Your task to perform on an android device: allow notifications from all sites in the chrome app Image 0: 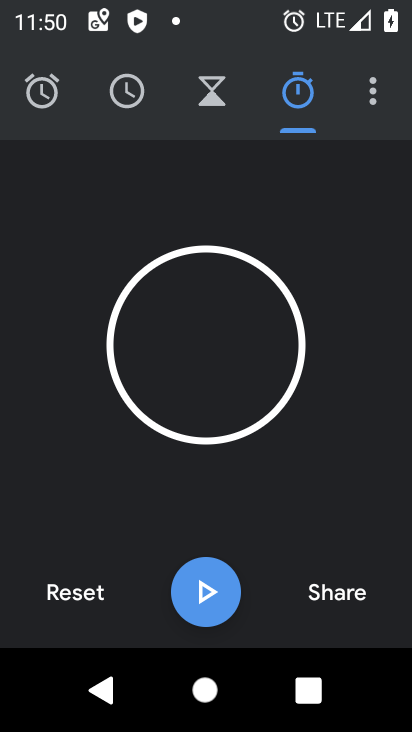
Step 0: press home button
Your task to perform on an android device: allow notifications from all sites in the chrome app Image 1: 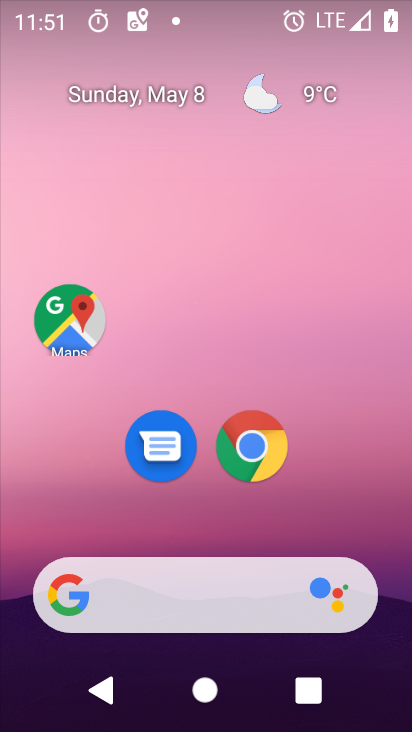
Step 1: click (260, 467)
Your task to perform on an android device: allow notifications from all sites in the chrome app Image 2: 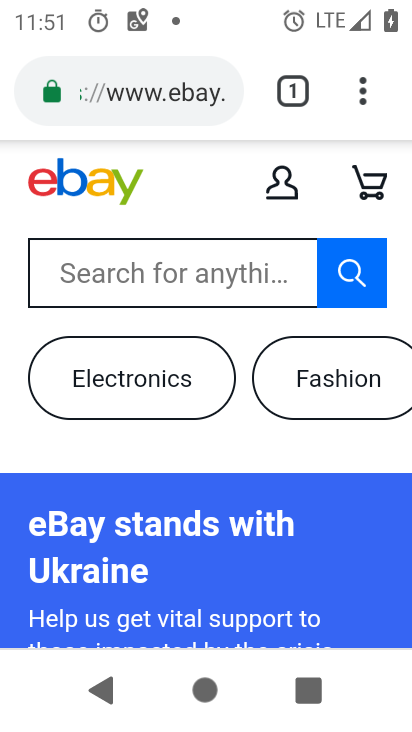
Step 2: drag from (367, 87) to (103, 482)
Your task to perform on an android device: allow notifications from all sites in the chrome app Image 3: 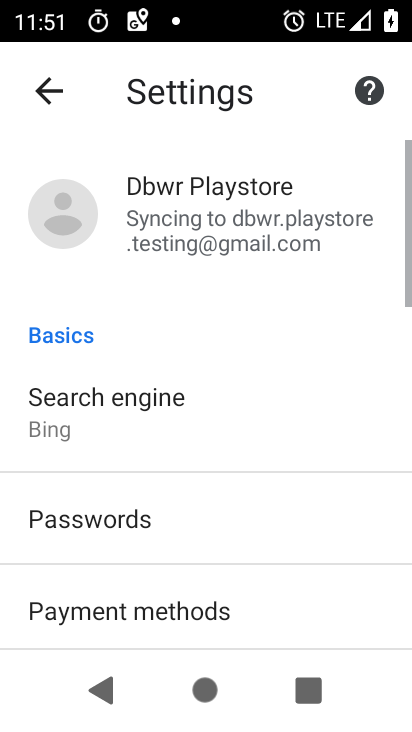
Step 3: drag from (103, 482) to (162, 111)
Your task to perform on an android device: allow notifications from all sites in the chrome app Image 4: 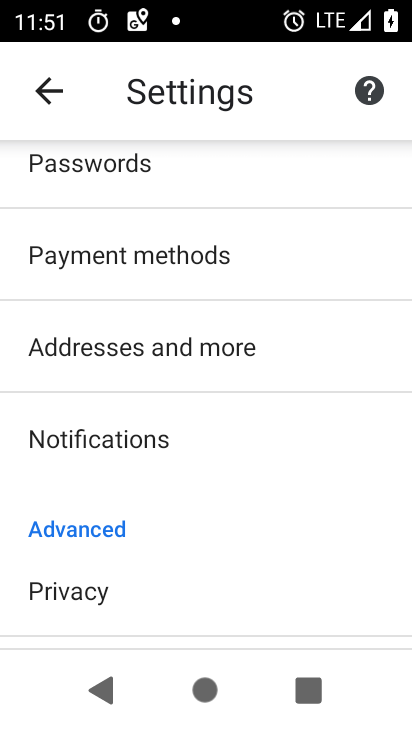
Step 4: drag from (145, 583) to (197, 202)
Your task to perform on an android device: allow notifications from all sites in the chrome app Image 5: 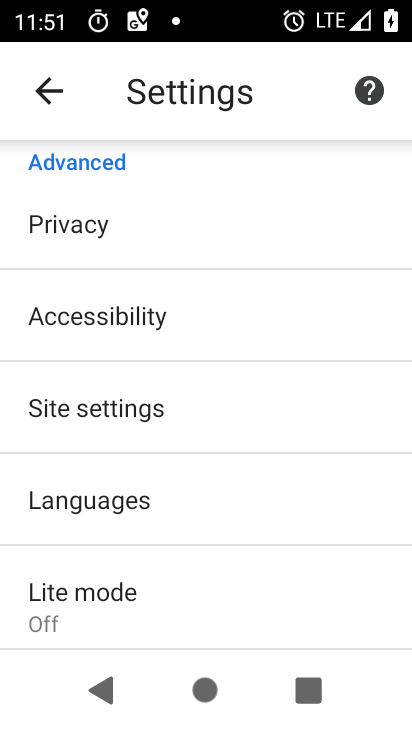
Step 5: click (132, 416)
Your task to perform on an android device: allow notifications from all sites in the chrome app Image 6: 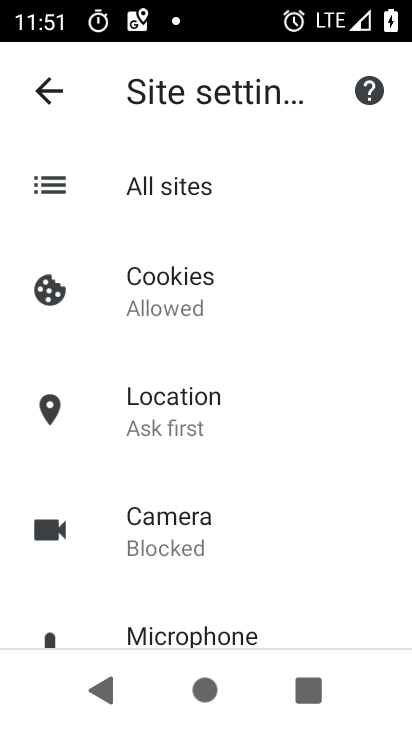
Step 6: drag from (240, 535) to (274, 207)
Your task to perform on an android device: allow notifications from all sites in the chrome app Image 7: 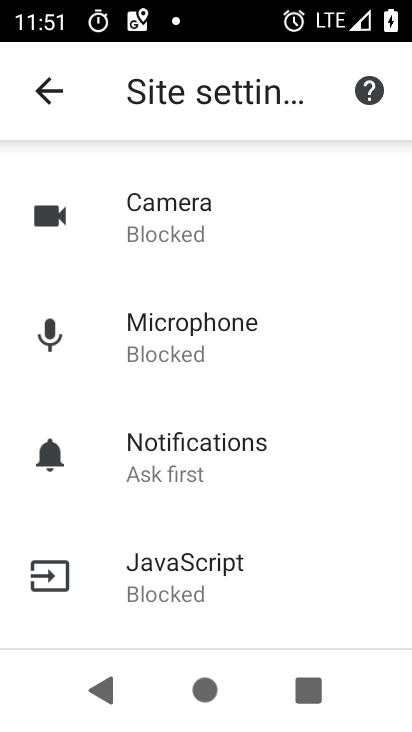
Step 7: click (237, 442)
Your task to perform on an android device: allow notifications from all sites in the chrome app Image 8: 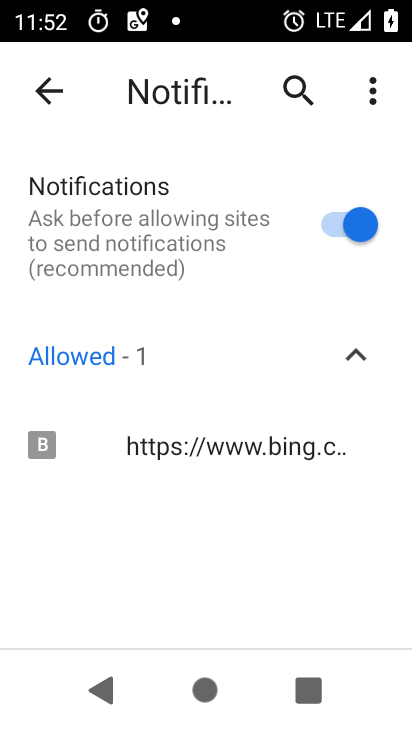
Step 8: task complete